Your task to perform on an android device: check storage Image 0: 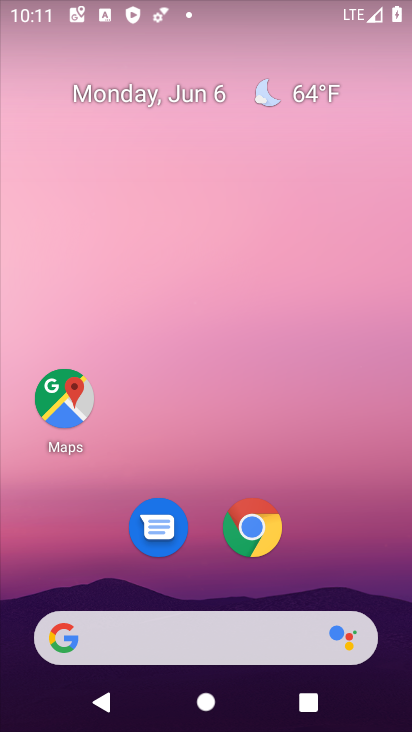
Step 0: drag from (194, 524) to (238, 318)
Your task to perform on an android device: check storage Image 1: 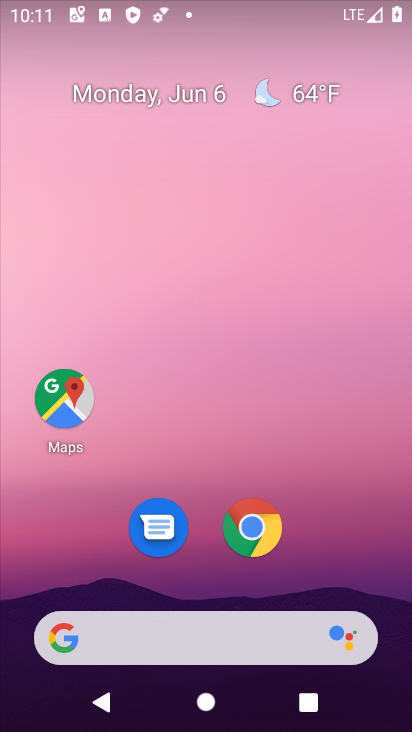
Step 1: drag from (227, 617) to (273, 329)
Your task to perform on an android device: check storage Image 2: 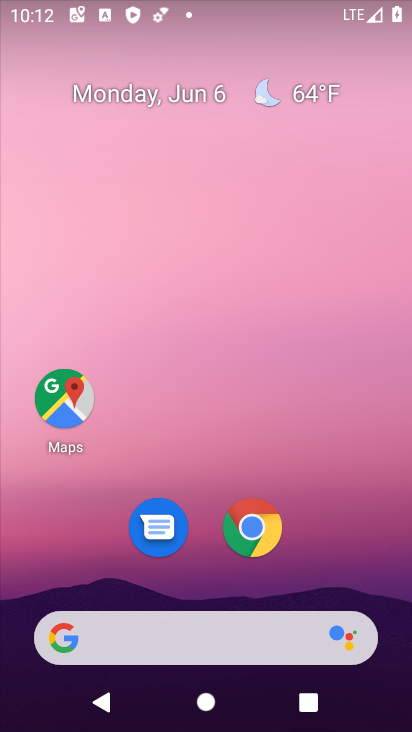
Step 2: drag from (195, 602) to (240, 353)
Your task to perform on an android device: check storage Image 3: 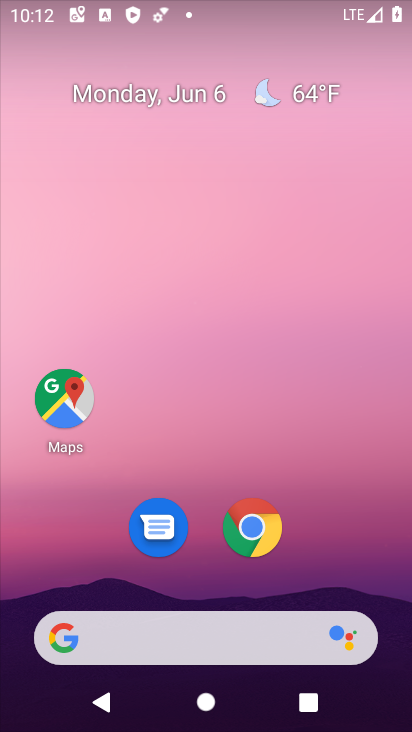
Step 3: drag from (152, 567) to (222, 296)
Your task to perform on an android device: check storage Image 4: 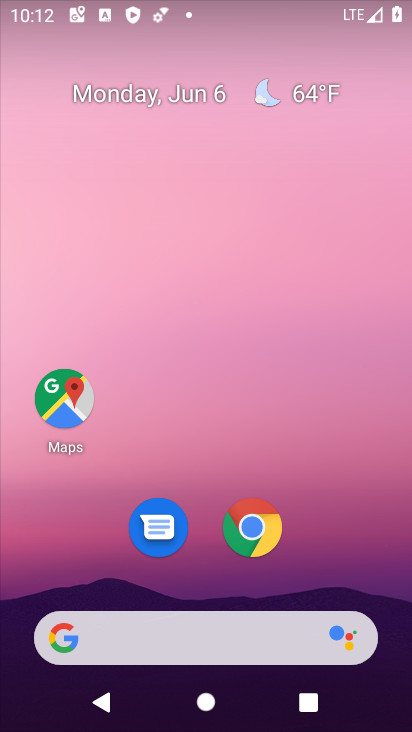
Step 4: drag from (166, 606) to (204, 278)
Your task to perform on an android device: check storage Image 5: 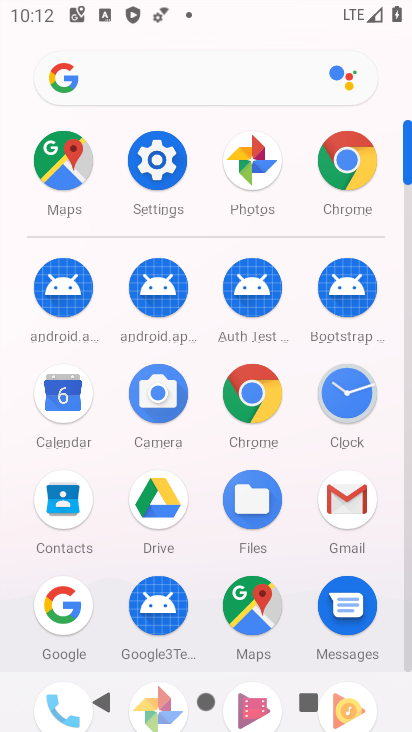
Step 5: click (166, 177)
Your task to perform on an android device: check storage Image 6: 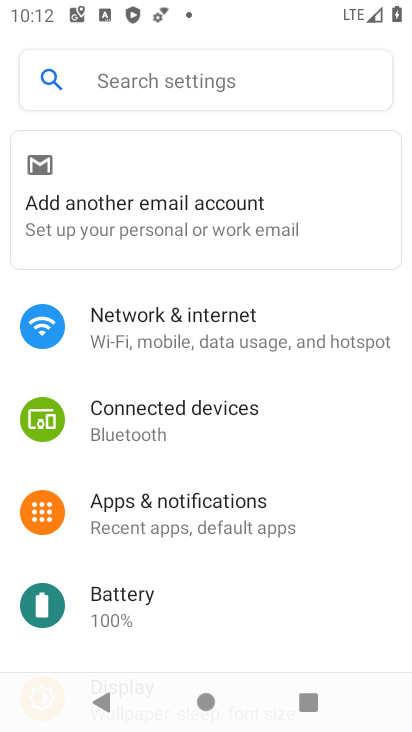
Step 6: drag from (207, 506) to (245, 194)
Your task to perform on an android device: check storage Image 7: 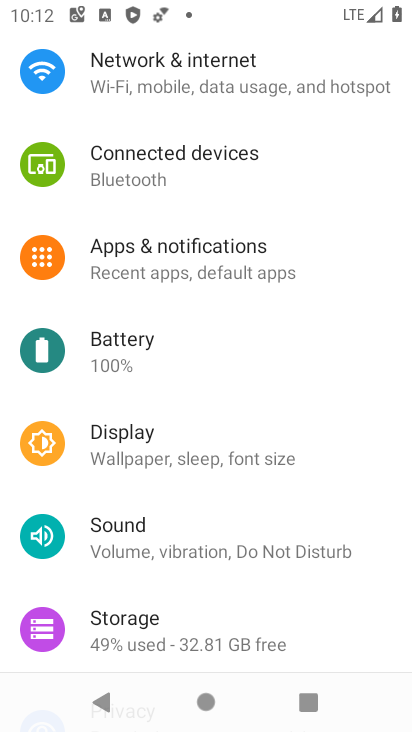
Step 7: drag from (232, 473) to (262, 320)
Your task to perform on an android device: check storage Image 8: 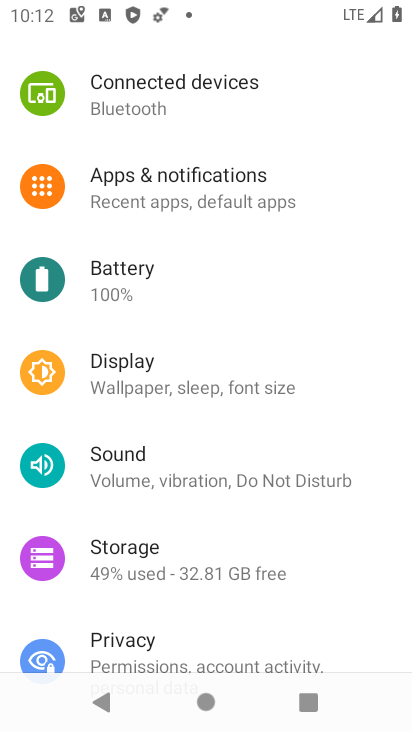
Step 8: click (244, 572)
Your task to perform on an android device: check storage Image 9: 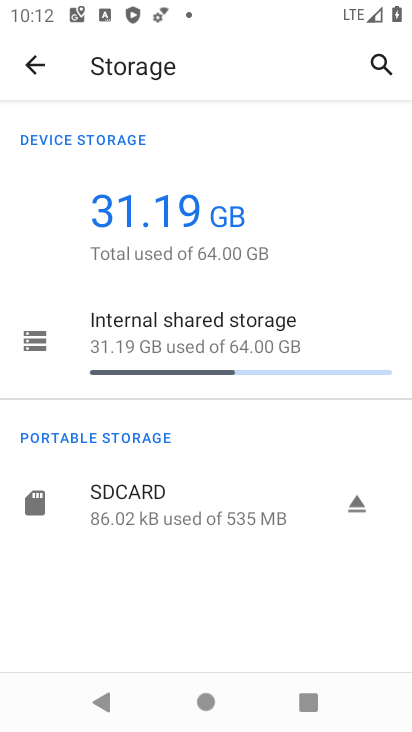
Step 9: click (257, 330)
Your task to perform on an android device: check storage Image 10: 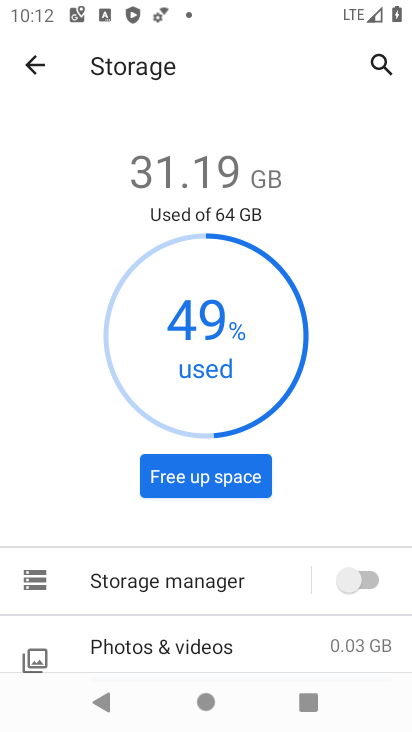
Step 10: task complete